Your task to perform on an android device: Go to calendar. Show me events next week Image 0: 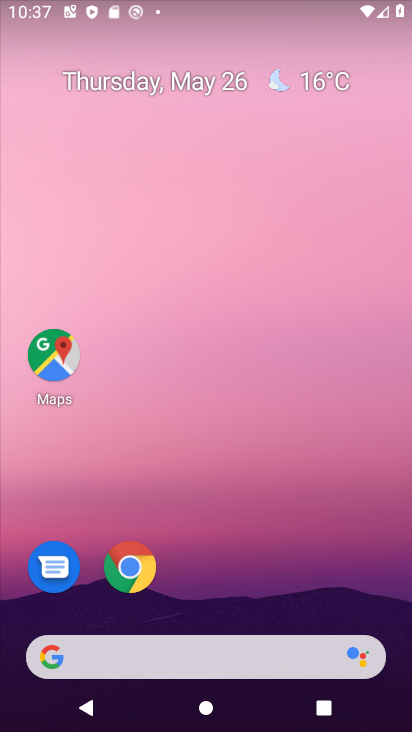
Step 0: drag from (226, 595) to (290, 121)
Your task to perform on an android device: Go to calendar. Show me events next week Image 1: 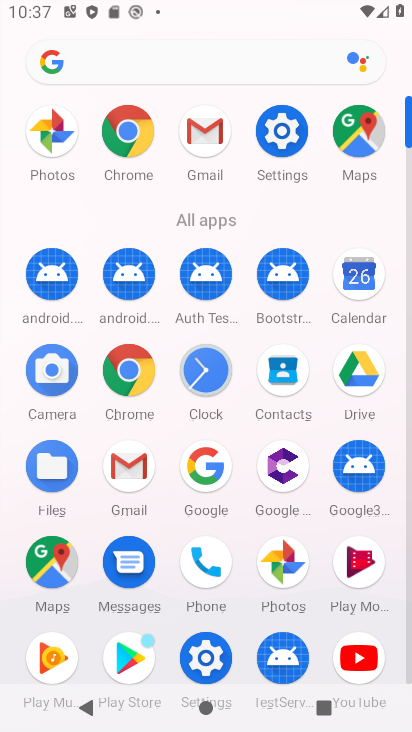
Step 1: click (357, 273)
Your task to perform on an android device: Go to calendar. Show me events next week Image 2: 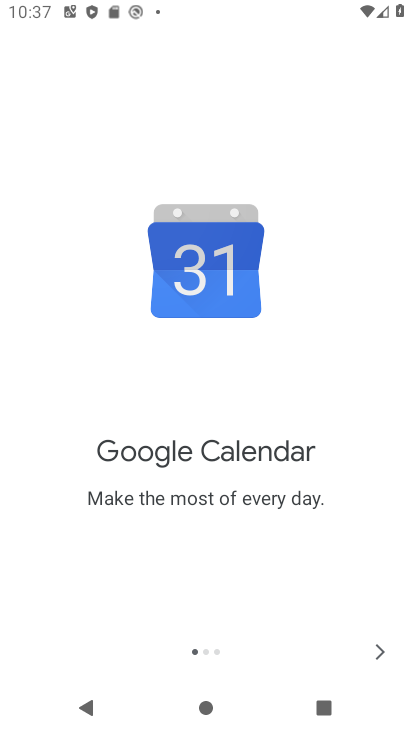
Step 2: click (377, 648)
Your task to perform on an android device: Go to calendar. Show me events next week Image 3: 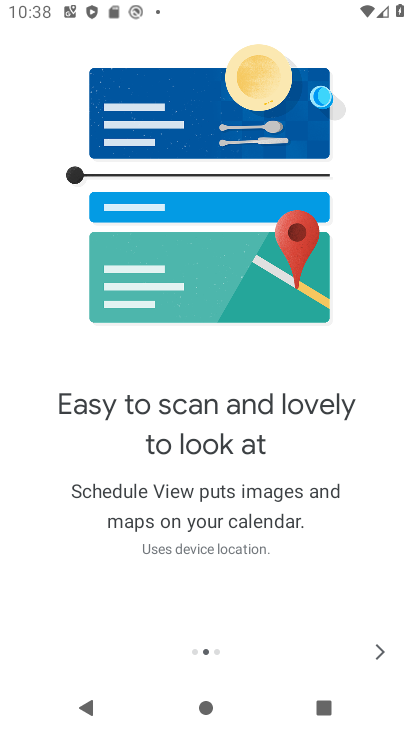
Step 3: click (377, 648)
Your task to perform on an android device: Go to calendar. Show me events next week Image 4: 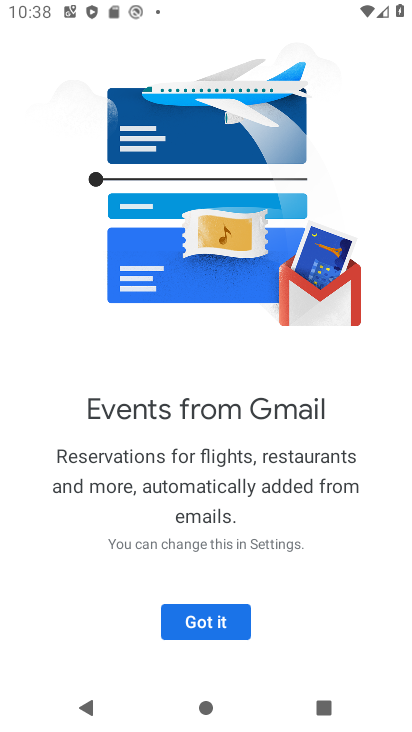
Step 4: click (208, 621)
Your task to perform on an android device: Go to calendar. Show me events next week Image 5: 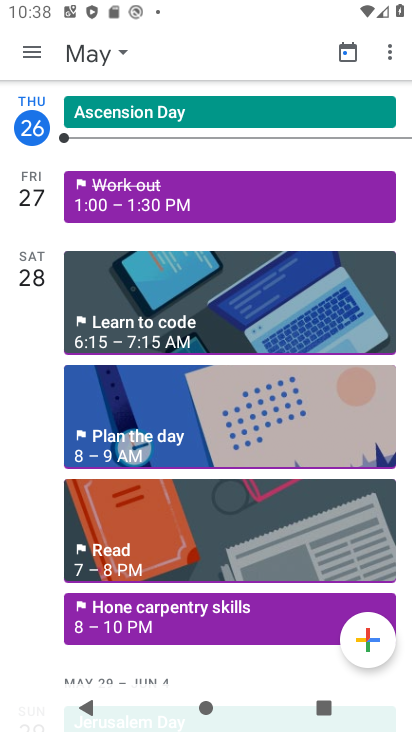
Step 5: click (37, 51)
Your task to perform on an android device: Go to calendar. Show me events next week Image 6: 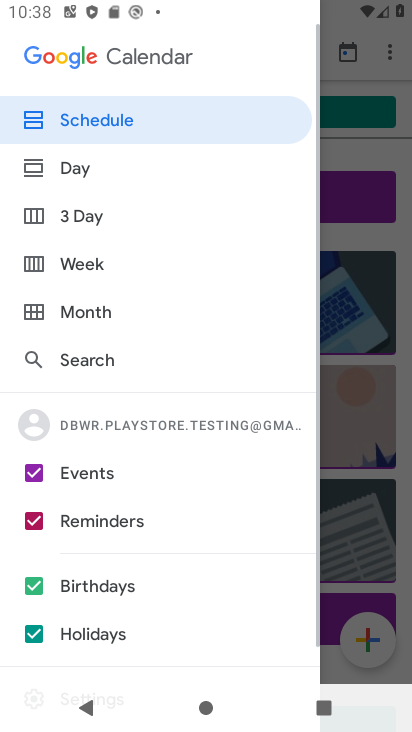
Step 6: click (33, 578)
Your task to perform on an android device: Go to calendar. Show me events next week Image 7: 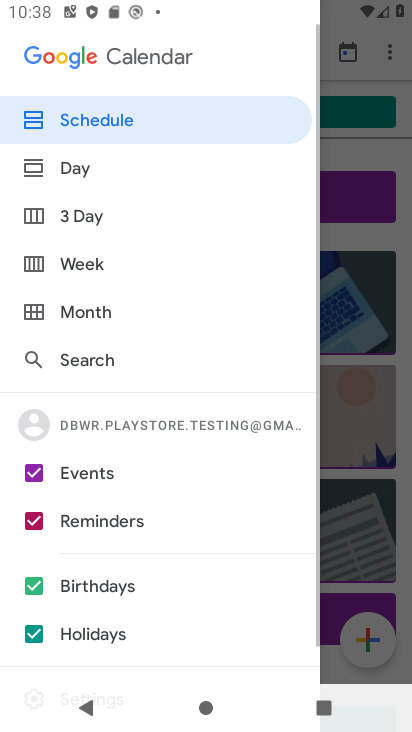
Step 7: click (31, 629)
Your task to perform on an android device: Go to calendar. Show me events next week Image 8: 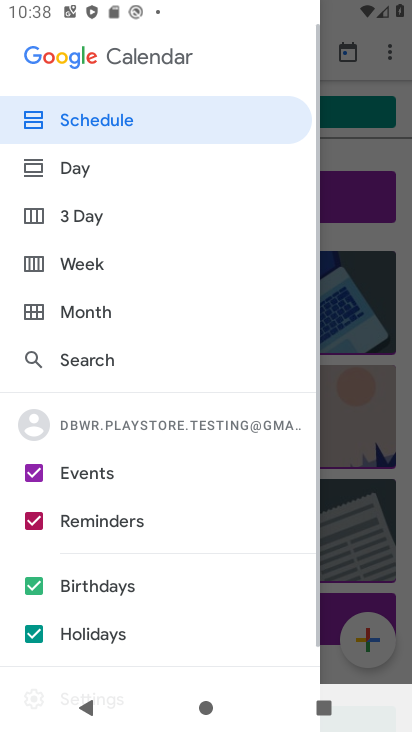
Step 8: click (31, 515)
Your task to perform on an android device: Go to calendar. Show me events next week Image 9: 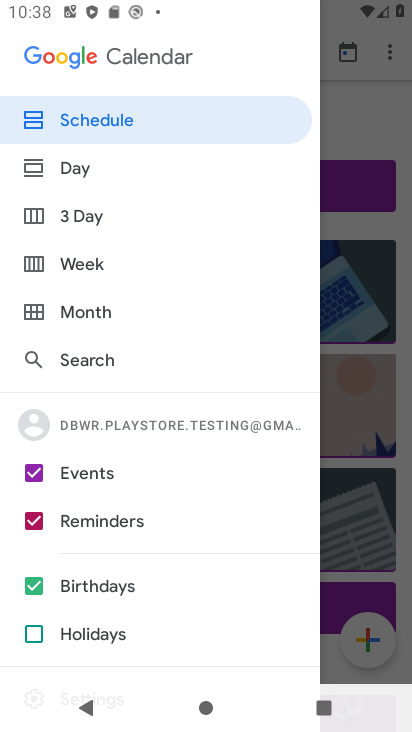
Step 9: click (35, 582)
Your task to perform on an android device: Go to calendar. Show me events next week Image 10: 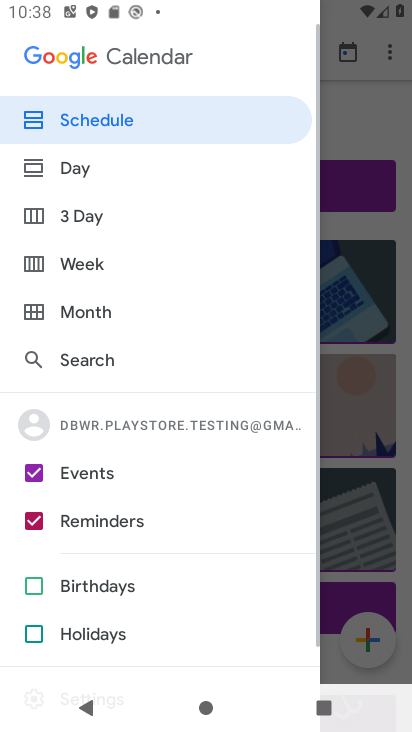
Step 10: click (31, 519)
Your task to perform on an android device: Go to calendar. Show me events next week Image 11: 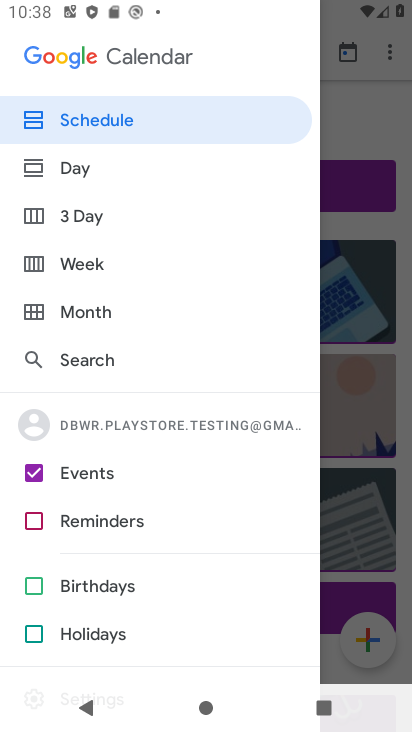
Step 11: click (56, 256)
Your task to perform on an android device: Go to calendar. Show me events next week Image 12: 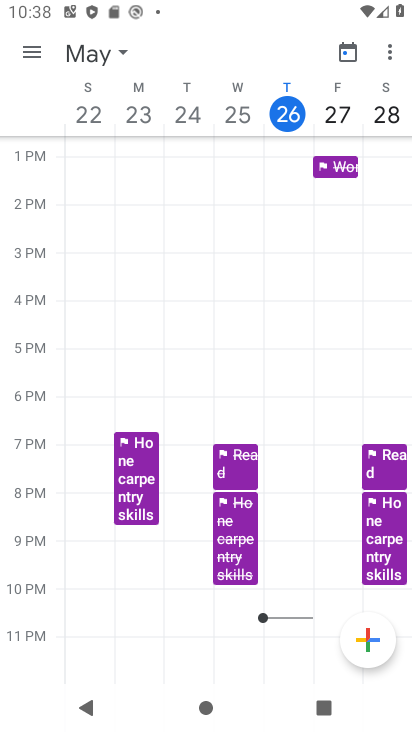
Step 12: drag from (356, 116) to (0, 121)
Your task to perform on an android device: Go to calendar. Show me events next week Image 13: 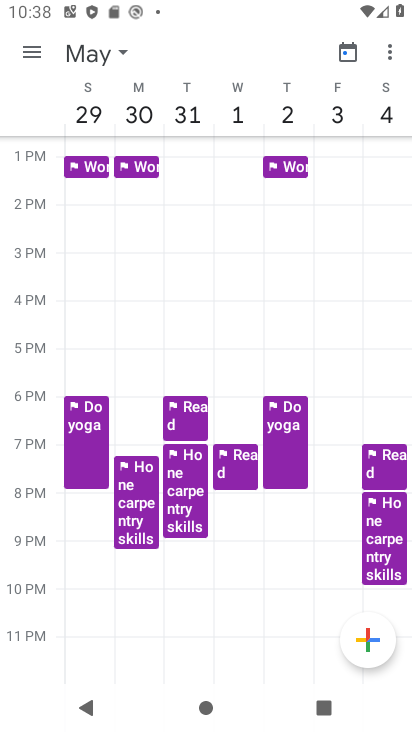
Step 13: click (89, 117)
Your task to perform on an android device: Go to calendar. Show me events next week Image 14: 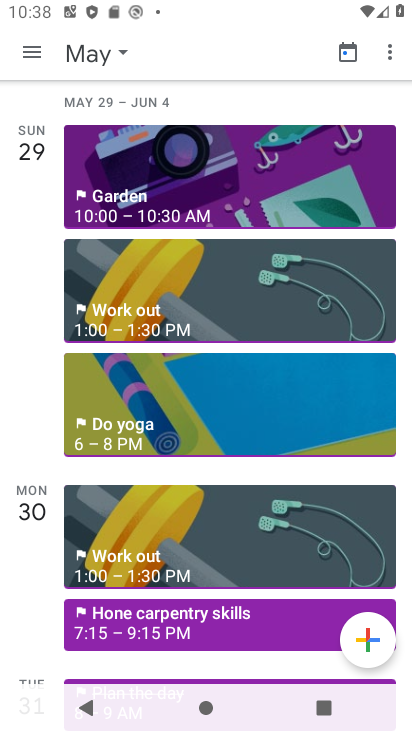
Step 14: drag from (31, 284) to (39, 77)
Your task to perform on an android device: Go to calendar. Show me events next week Image 15: 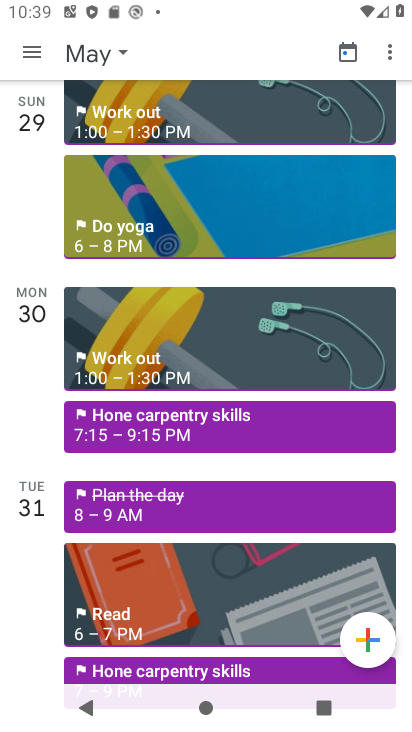
Step 15: click (63, 188)
Your task to perform on an android device: Go to calendar. Show me events next week Image 16: 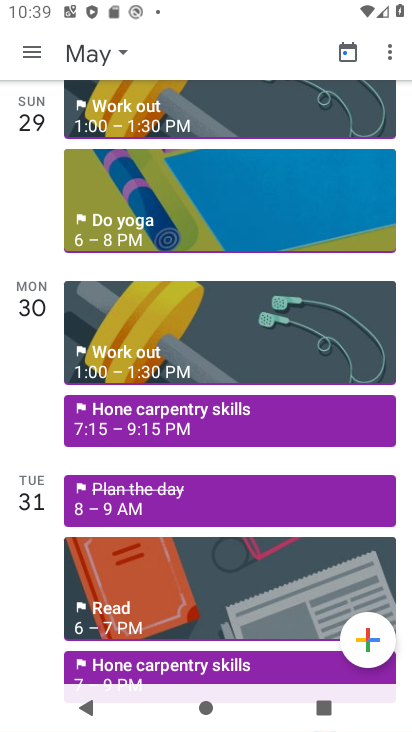
Step 16: drag from (37, 538) to (55, 195)
Your task to perform on an android device: Go to calendar. Show me events next week Image 17: 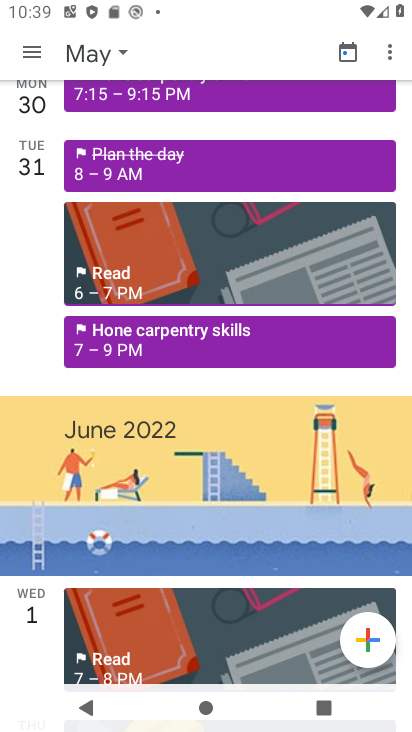
Step 17: drag from (35, 383) to (48, 185)
Your task to perform on an android device: Go to calendar. Show me events next week Image 18: 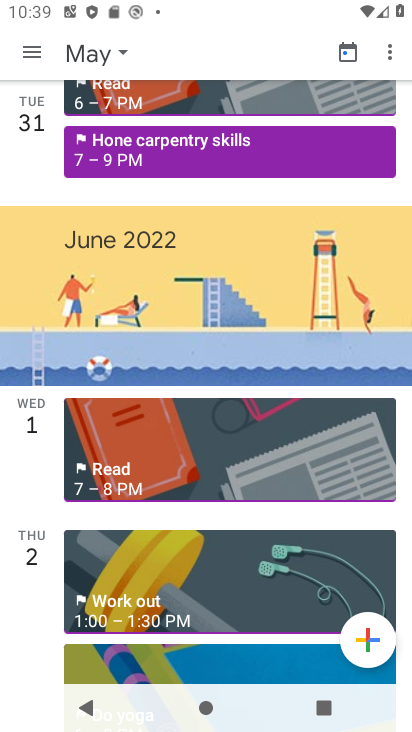
Step 18: drag from (32, 518) to (33, 177)
Your task to perform on an android device: Go to calendar. Show me events next week Image 19: 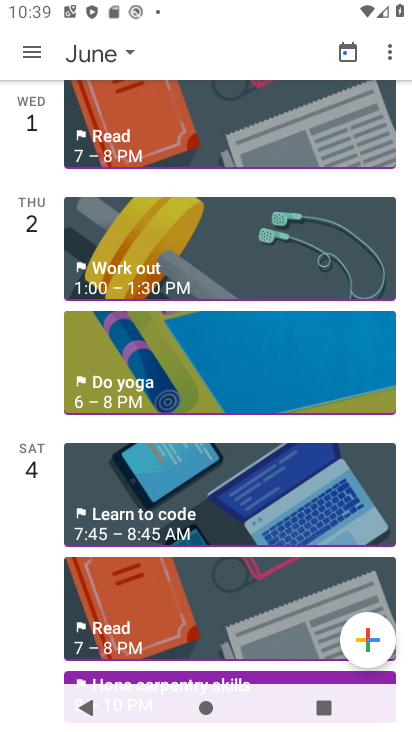
Step 19: drag from (33, 630) to (49, 233)
Your task to perform on an android device: Go to calendar. Show me events next week Image 20: 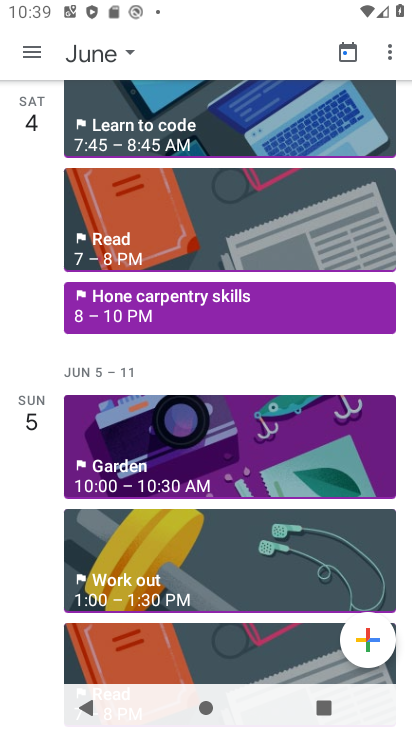
Step 20: drag from (38, 611) to (30, 229)
Your task to perform on an android device: Go to calendar. Show me events next week Image 21: 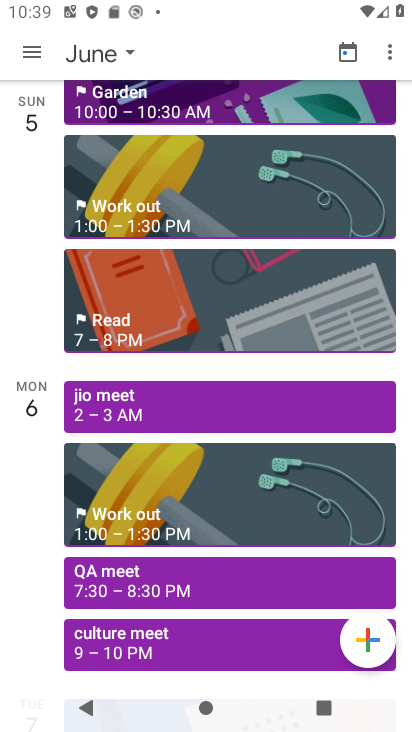
Step 21: click (39, 379)
Your task to perform on an android device: Go to calendar. Show me events next week Image 22: 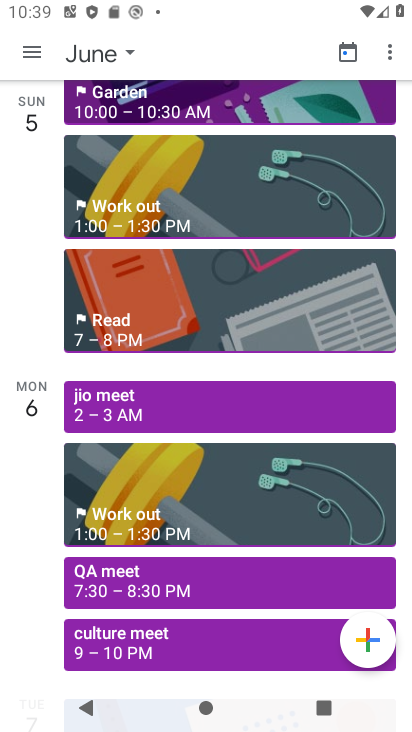
Step 22: task complete